Your task to perform on an android device: Open calendar and show me the second week of next month Image 0: 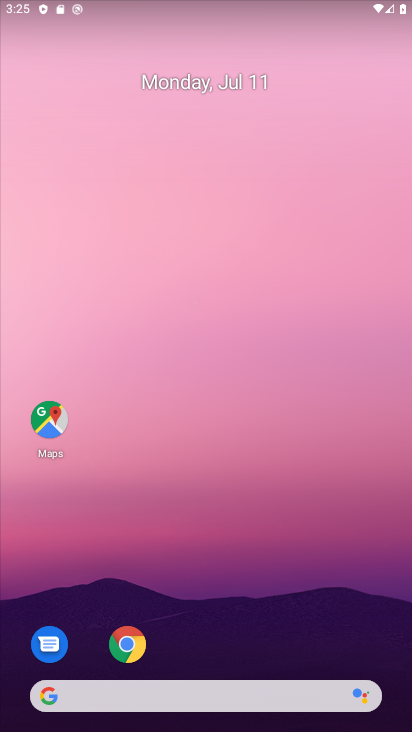
Step 0: drag from (242, 415) to (285, 40)
Your task to perform on an android device: Open calendar and show me the second week of next month Image 1: 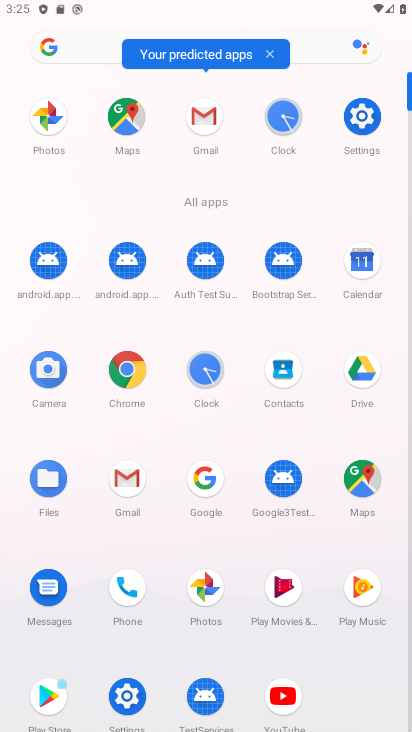
Step 1: click (356, 259)
Your task to perform on an android device: Open calendar and show me the second week of next month Image 2: 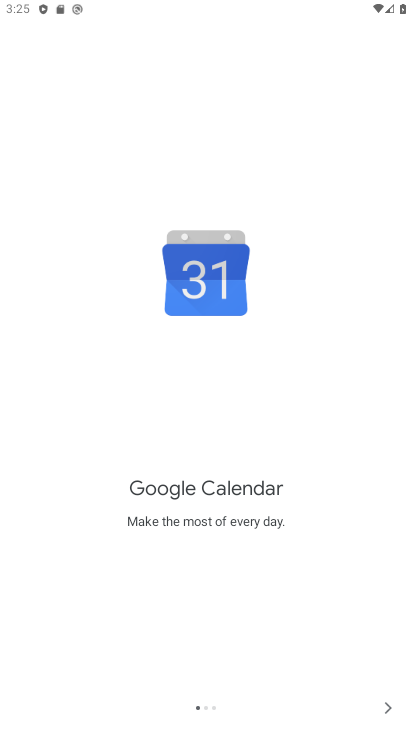
Step 2: click (388, 709)
Your task to perform on an android device: Open calendar and show me the second week of next month Image 3: 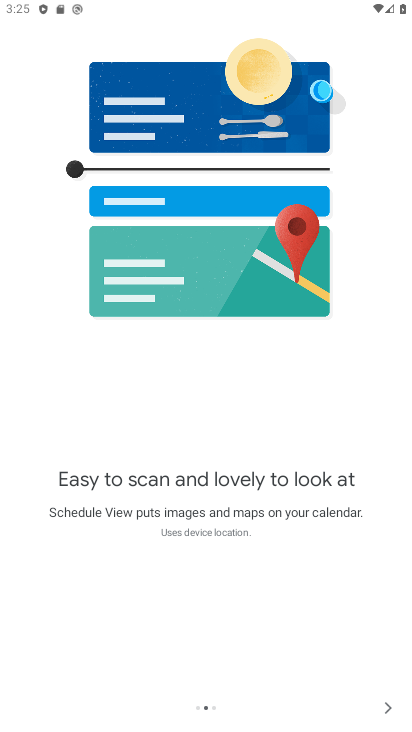
Step 3: click (388, 711)
Your task to perform on an android device: Open calendar and show me the second week of next month Image 4: 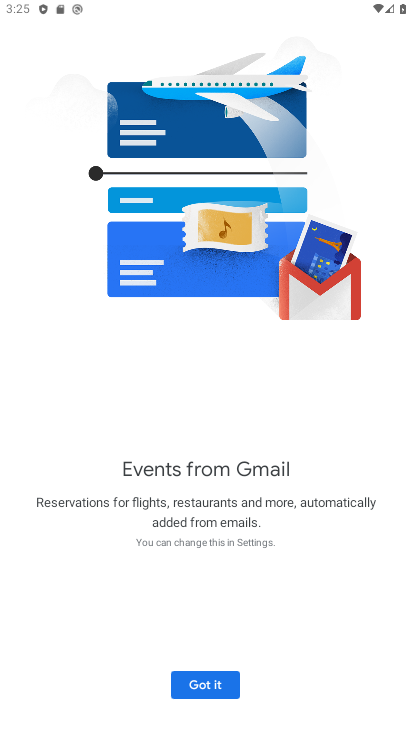
Step 4: click (226, 695)
Your task to perform on an android device: Open calendar and show me the second week of next month Image 5: 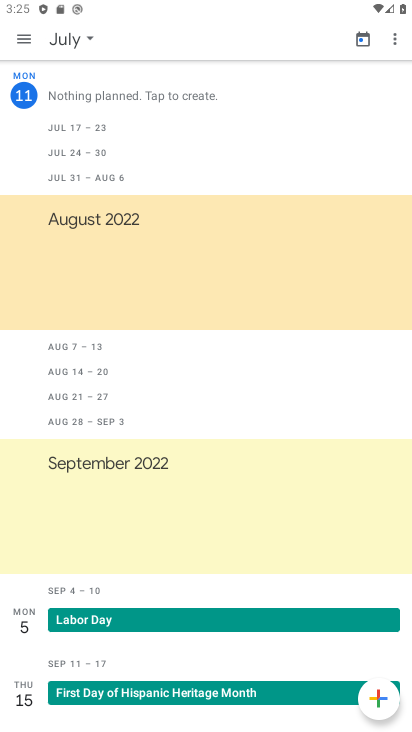
Step 5: click (68, 39)
Your task to perform on an android device: Open calendar and show me the second week of next month Image 6: 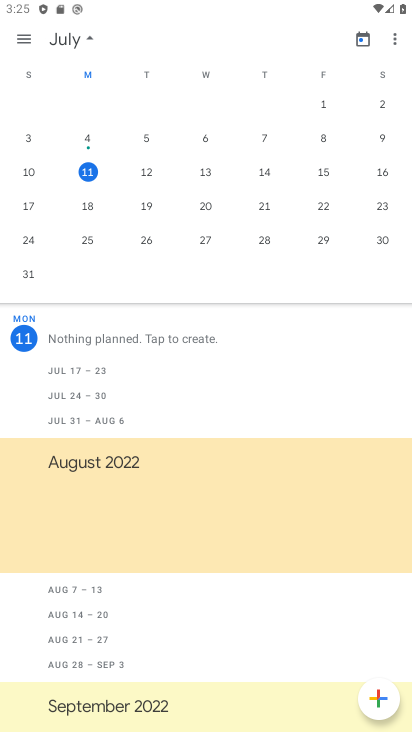
Step 6: drag from (387, 209) to (0, 177)
Your task to perform on an android device: Open calendar and show me the second week of next month Image 7: 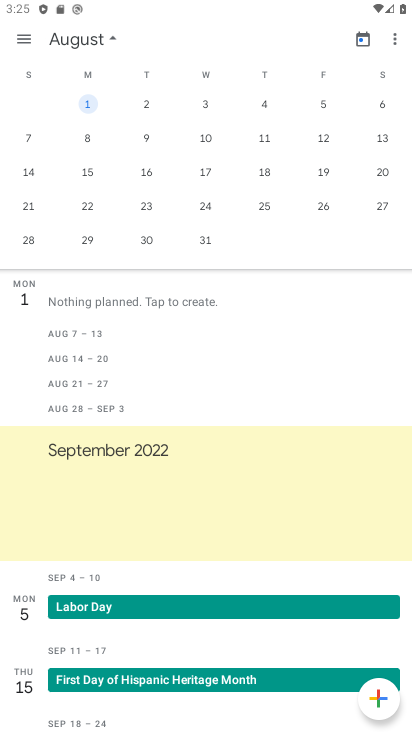
Step 7: click (28, 173)
Your task to perform on an android device: Open calendar and show me the second week of next month Image 8: 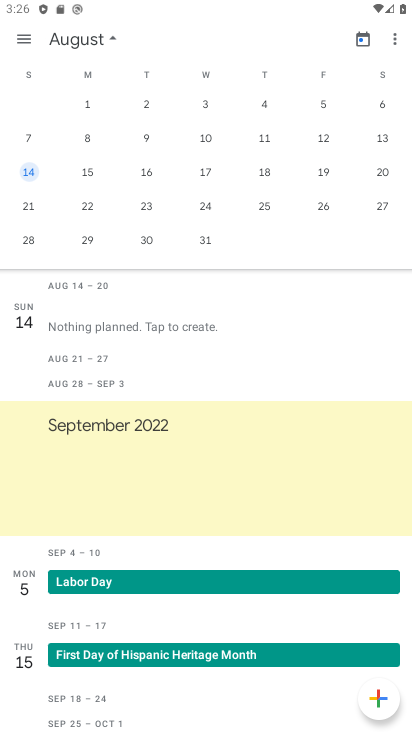
Step 8: click (24, 37)
Your task to perform on an android device: Open calendar and show me the second week of next month Image 9: 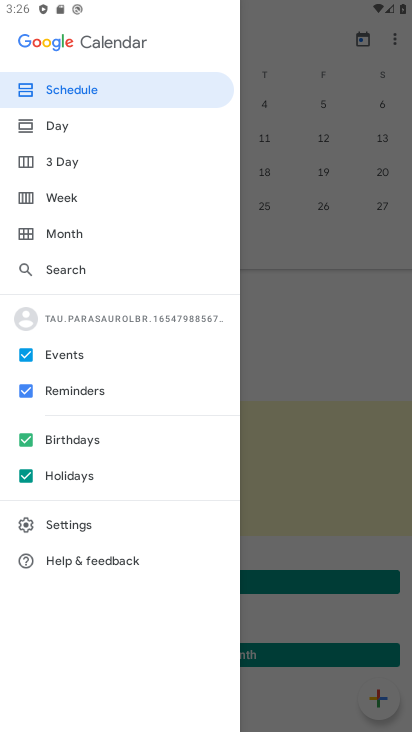
Step 9: click (89, 206)
Your task to perform on an android device: Open calendar and show me the second week of next month Image 10: 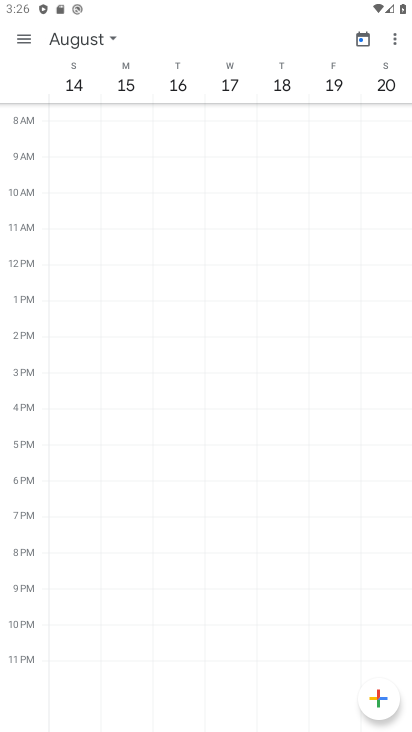
Step 10: task complete